Your task to perform on an android device: Go to CNN.com Image 0: 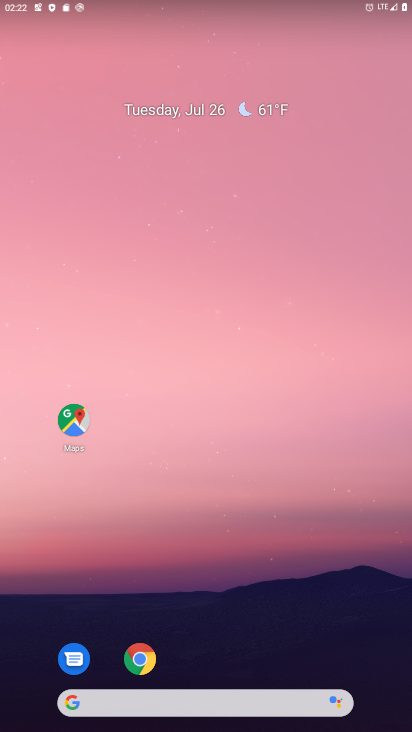
Step 0: drag from (258, 267) to (232, 48)
Your task to perform on an android device: Go to CNN.com Image 1: 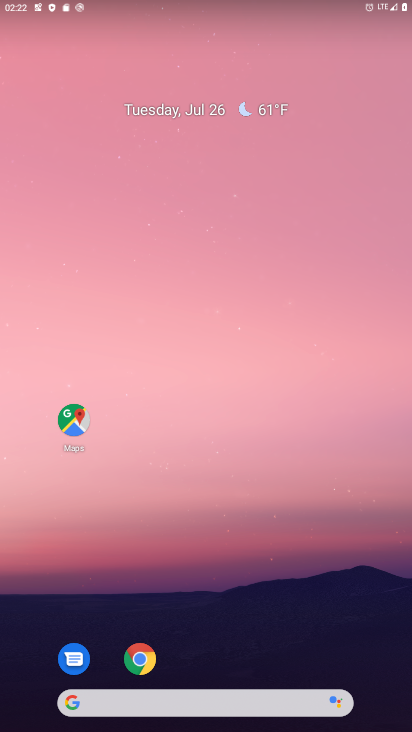
Step 1: drag from (281, 668) to (226, 12)
Your task to perform on an android device: Go to CNN.com Image 2: 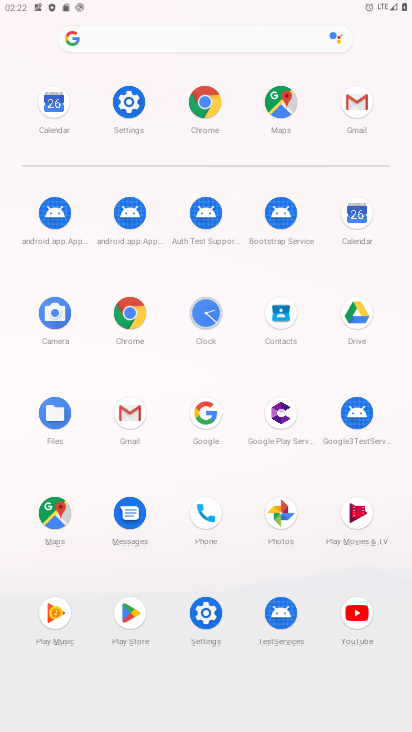
Step 2: click (206, 94)
Your task to perform on an android device: Go to CNN.com Image 3: 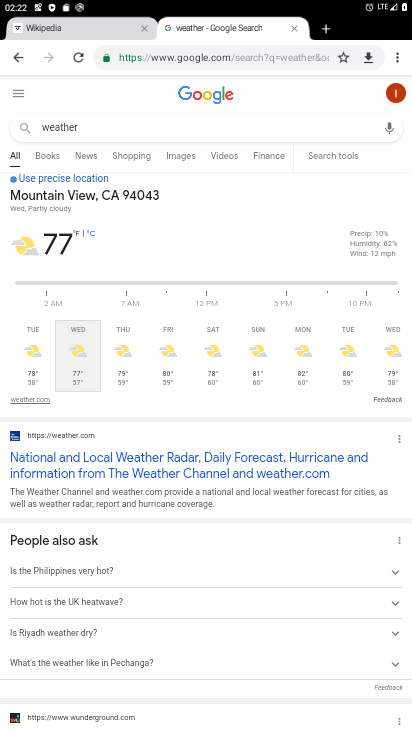
Step 3: click (205, 63)
Your task to perform on an android device: Go to CNN.com Image 4: 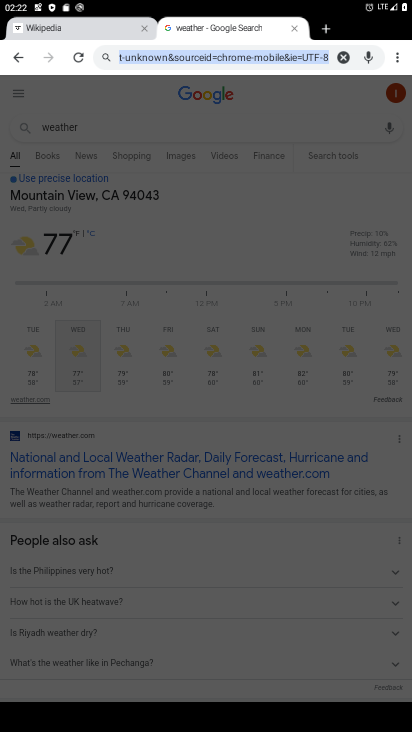
Step 4: type "cnn.com"
Your task to perform on an android device: Go to CNN.com Image 5: 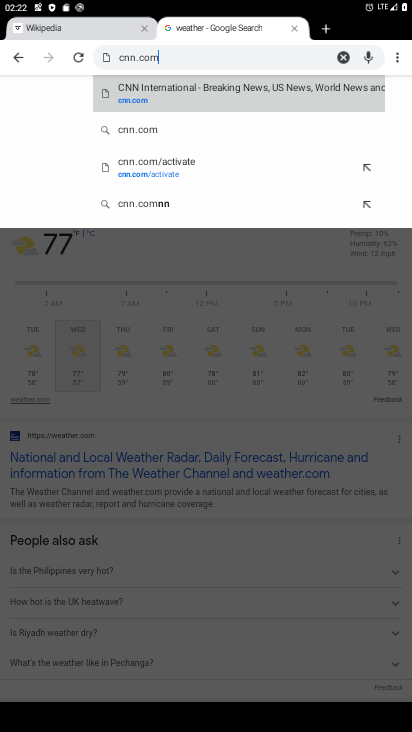
Step 5: click (142, 102)
Your task to perform on an android device: Go to CNN.com Image 6: 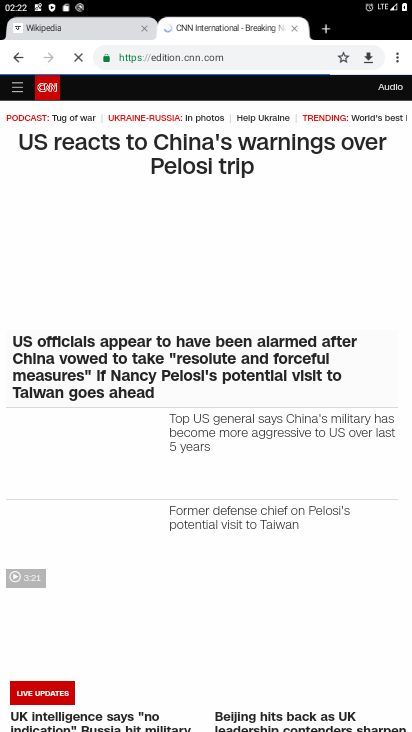
Step 6: task complete